Your task to perform on an android device: turn notification dots on Image 0: 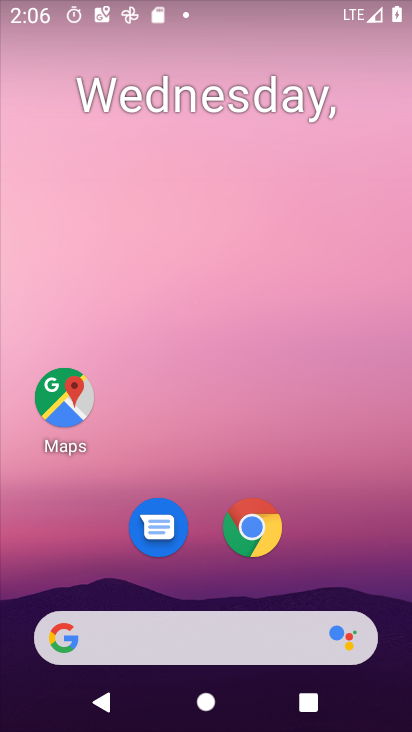
Step 0: drag from (266, 534) to (266, 7)
Your task to perform on an android device: turn notification dots on Image 1: 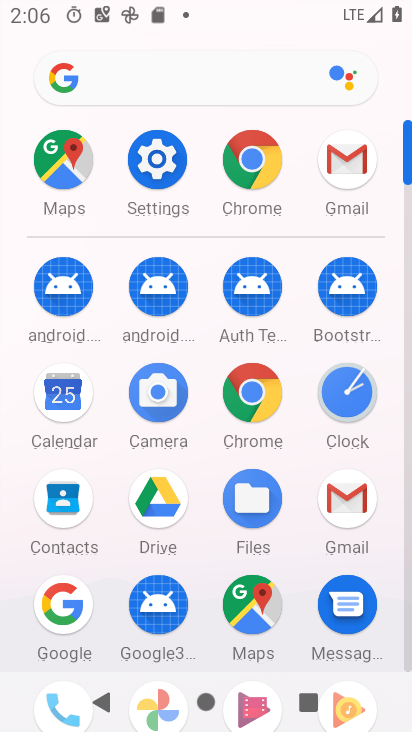
Step 1: click (135, 165)
Your task to perform on an android device: turn notification dots on Image 2: 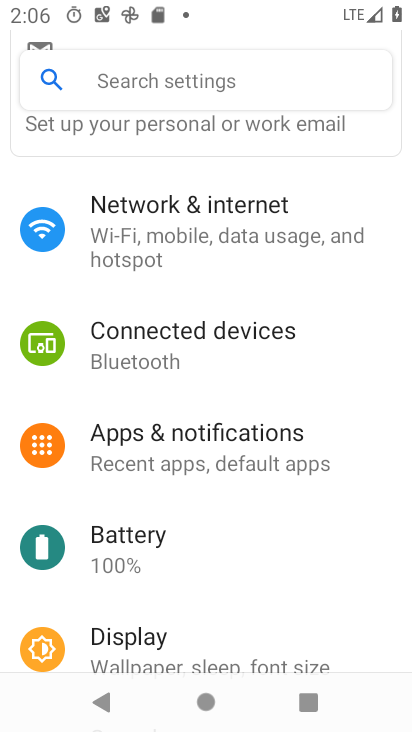
Step 2: click (184, 452)
Your task to perform on an android device: turn notification dots on Image 3: 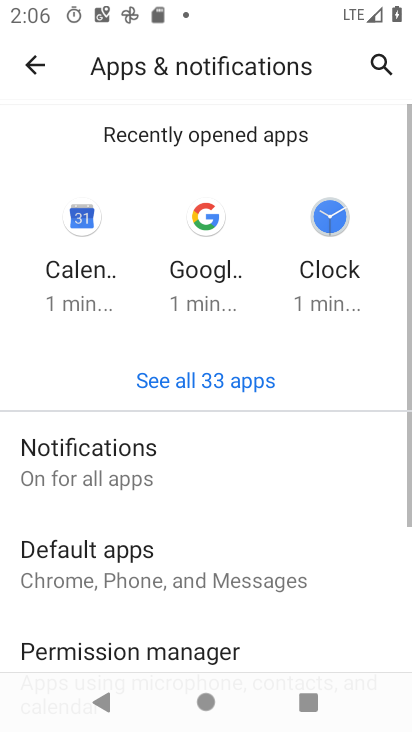
Step 3: drag from (243, 598) to (276, 123)
Your task to perform on an android device: turn notification dots on Image 4: 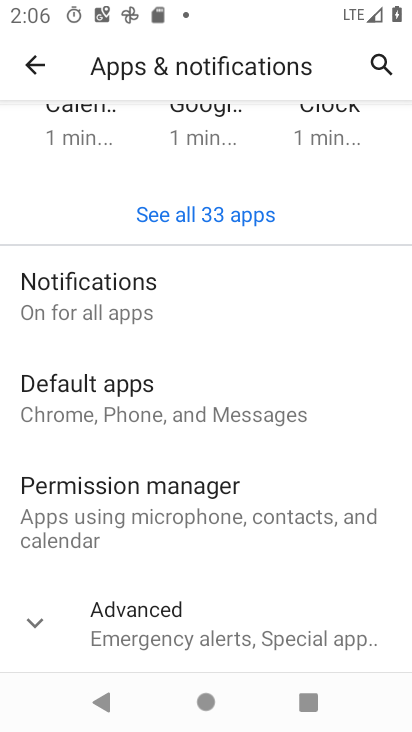
Step 4: click (169, 290)
Your task to perform on an android device: turn notification dots on Image 5: 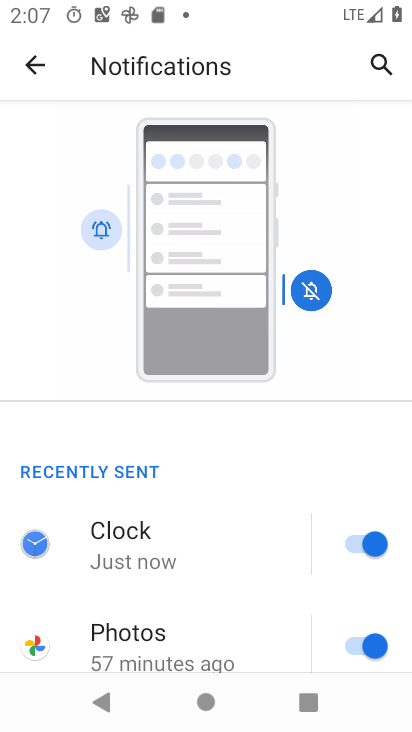
Step 5: drag from (144, 526) to (119, 83)
Your task to perform on an android device: turn notification dots on Image 6: 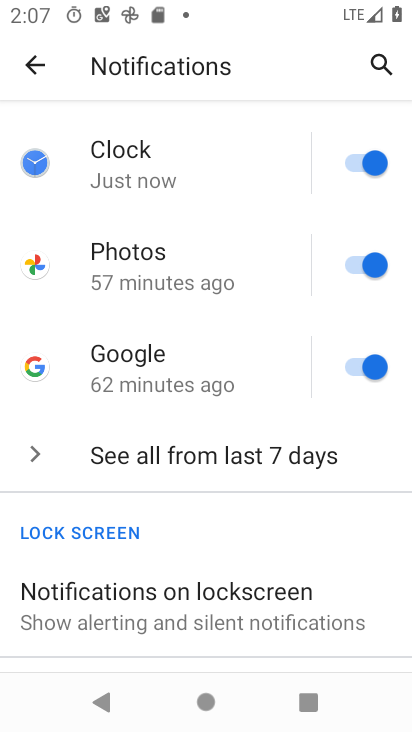
Step 6: drag from (283, 552) to (260, 106)
Your task to perform on an android device: turn notification dots on Image 7: 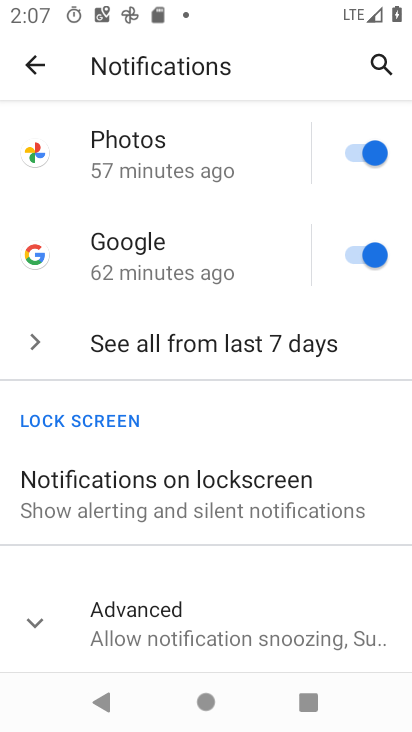
Step 7: click (236, 624)
Your task to perform on an android device: turn notification dots on Image 8: 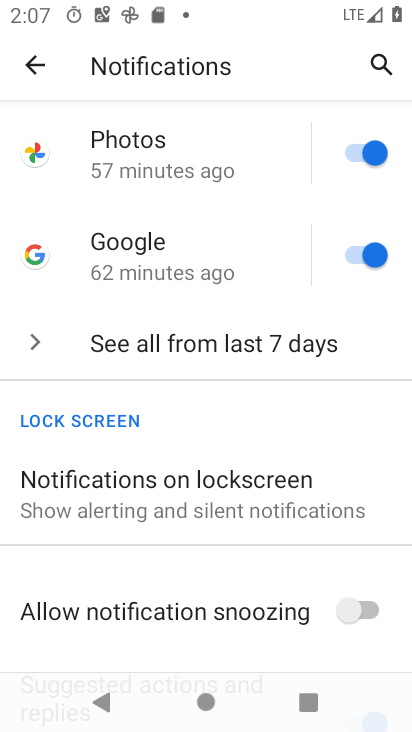
Step 8: task complete